Your task to perform on an android device: Open Google Maps Image 0: 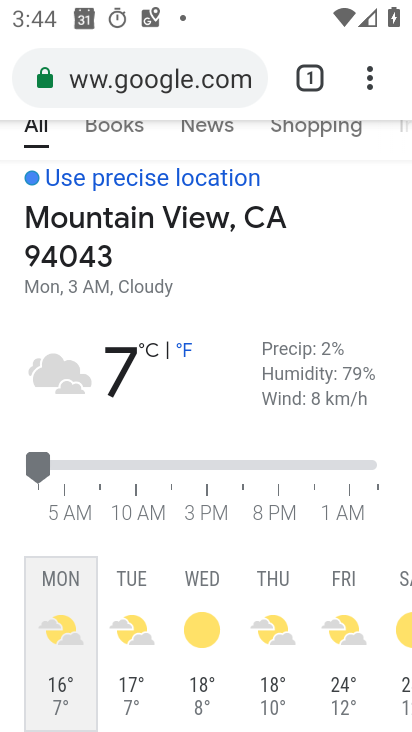
Step 0: press home button
Your task to perform on an android device: Open Google Maps Image 1: 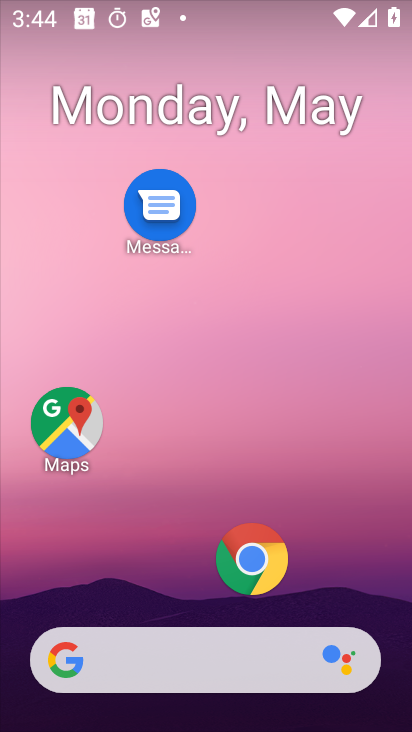
Step 1: click (69, 425)
Your task to perform on an android device: Open Google Maps Image 2: 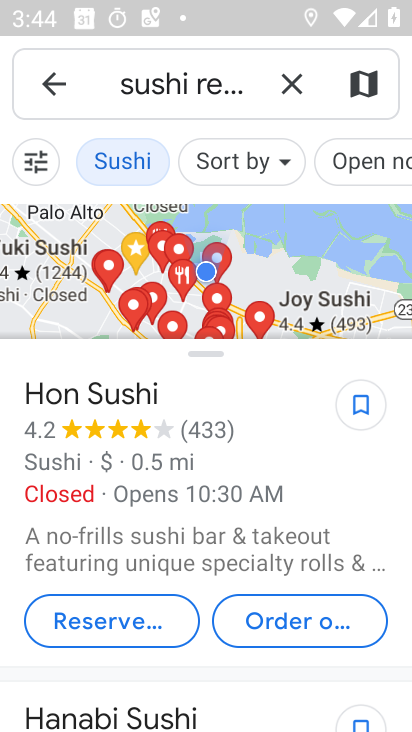
Step 2: task complete